Your task to perform on an android device: check google app version Image 0: 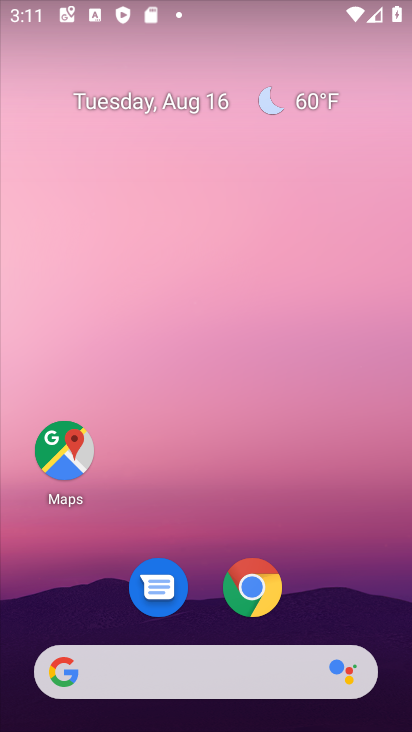
Step 0: click (150, 39)
Your task to perform on an android device: check google app version Image 1: 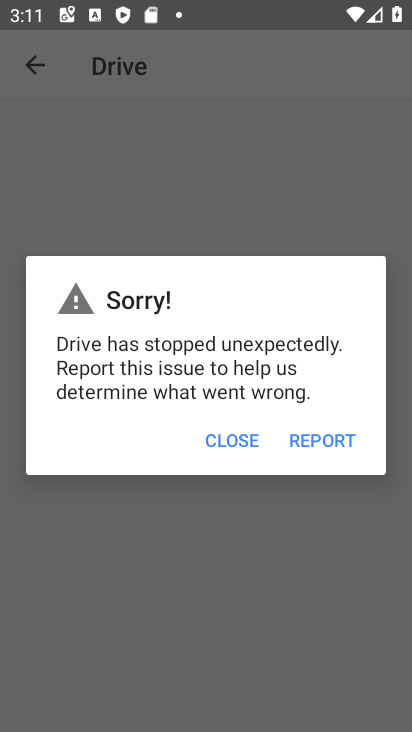
Step 1: press back button
Your task to perform on an android device: check google app version Image 2: 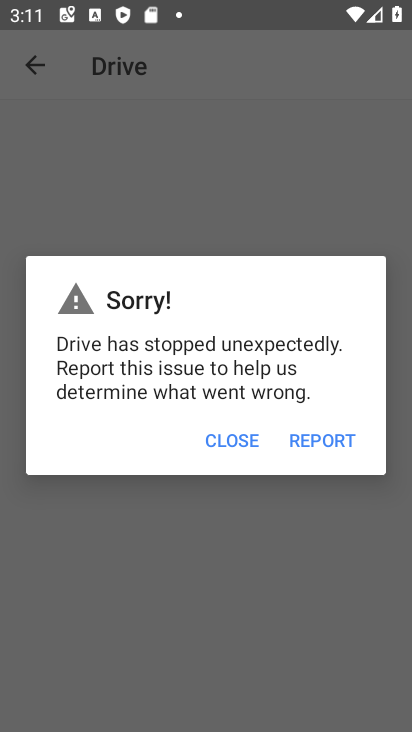
Step 2: press home button
Your task to perform on an android device: check google app version Image 3: 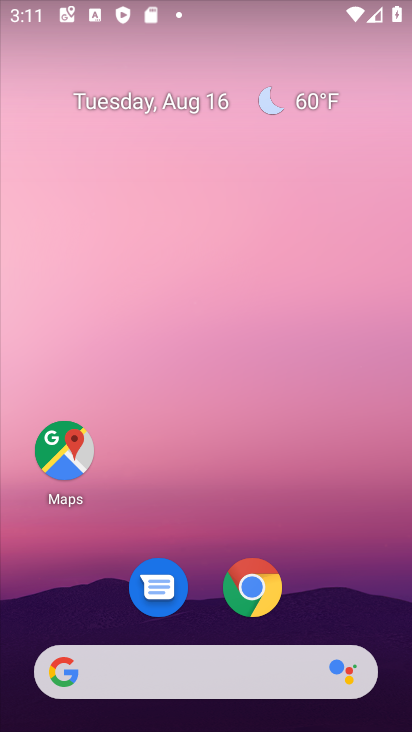
Step 3: drag from (150, 643) to (153, 47)
Your task to perform on an android device: check google app version Image 4: 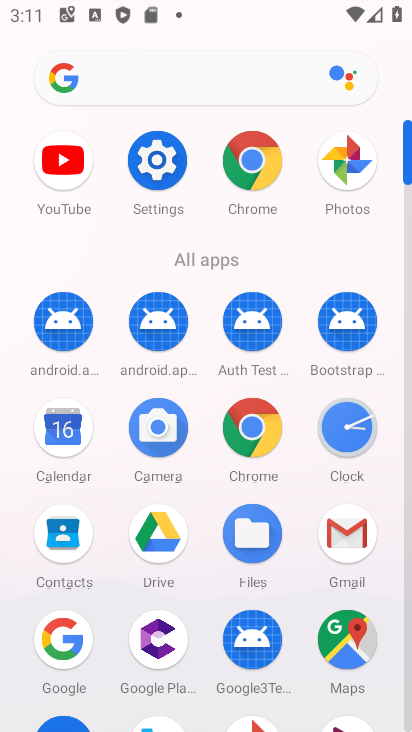
Step 4: click (68, 643)
Your task to perform on an android device: check google app version Image 5: 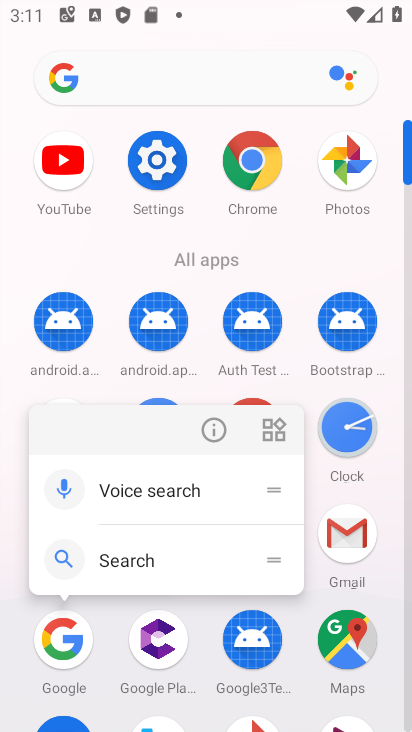
Step 5: click (217, 427)
Your task to perform on an android device: check google app version Image 6: 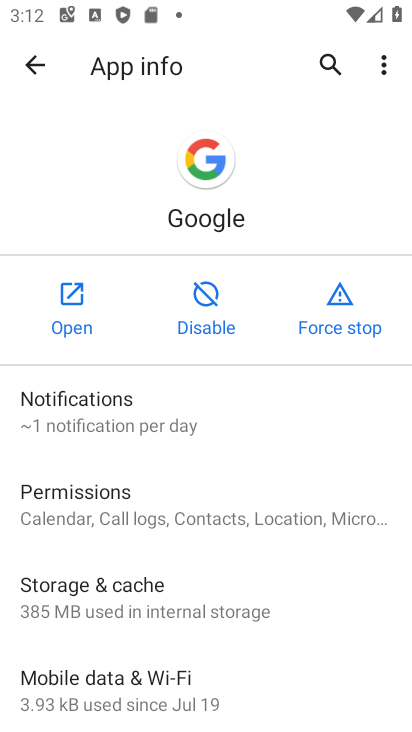
Step 6: drag from (181, 701) to (320, 65)
Your task to perform on an android device: check google app version Image 7: 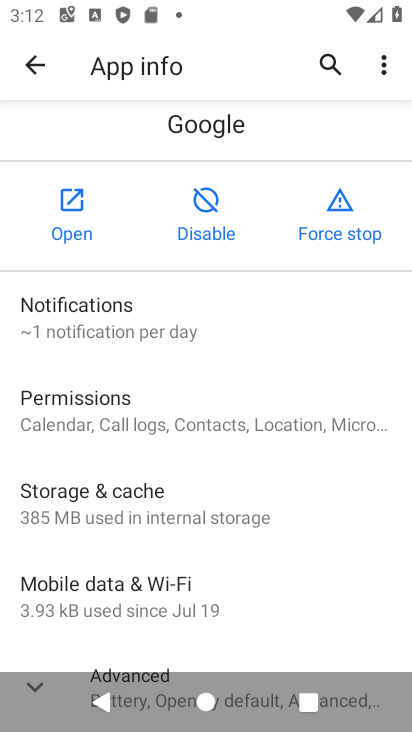
Step 7: drag from (220, 596) to (289, 101)
Your task to perform on an android device: check google app version Image 8: 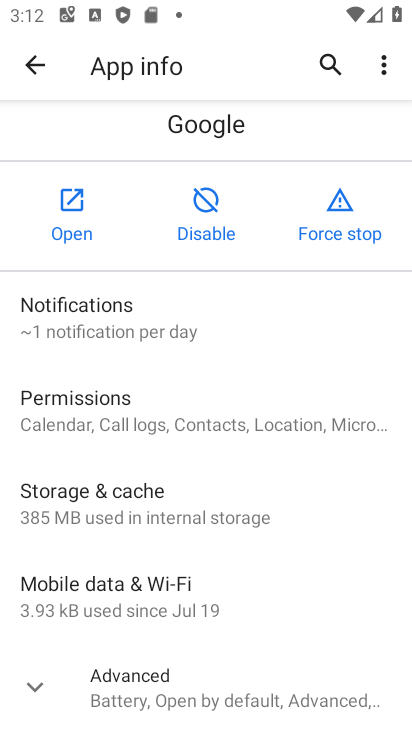
Step 8: click (206, 694)
Your task to perform on an android device: check google app version Image 9: 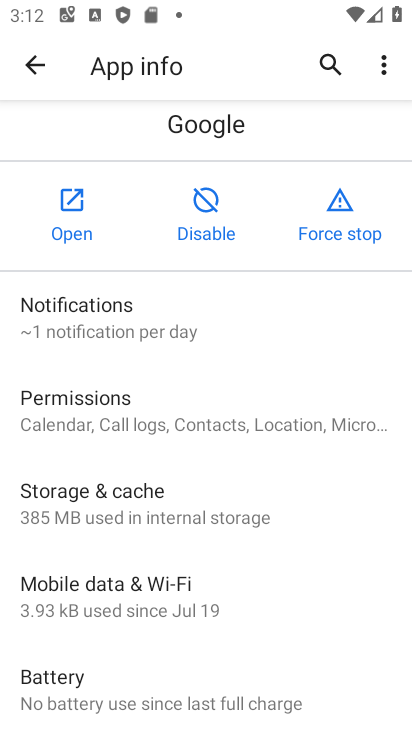
Step 9: task complete